Your task to perform on an android device: turn on sleep mode Image 0: 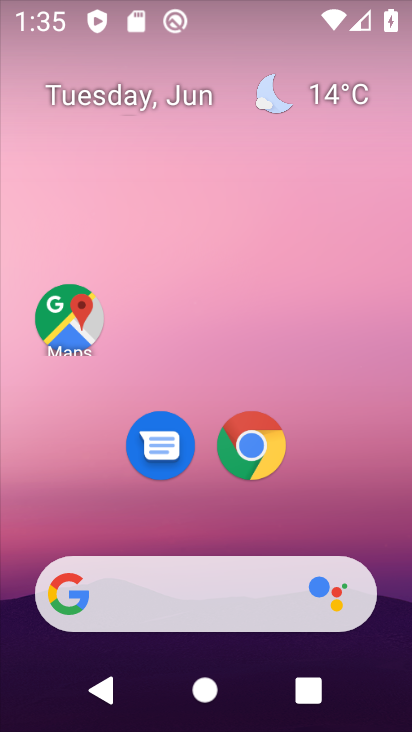
Step 0: drag from (362, 520) to (364, 169)
Your task to perform on an android device: turn on sleep mode Image 1: 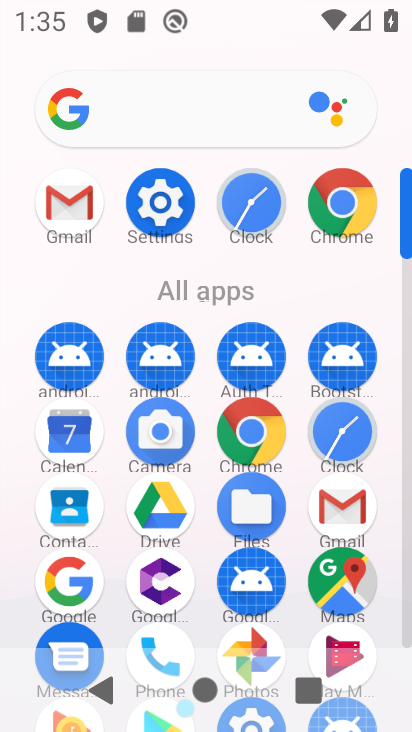
Step 1: drag from (287, 590) to (292, 281)
Your task to perform on an android device: turn on sleep mode Image 2: 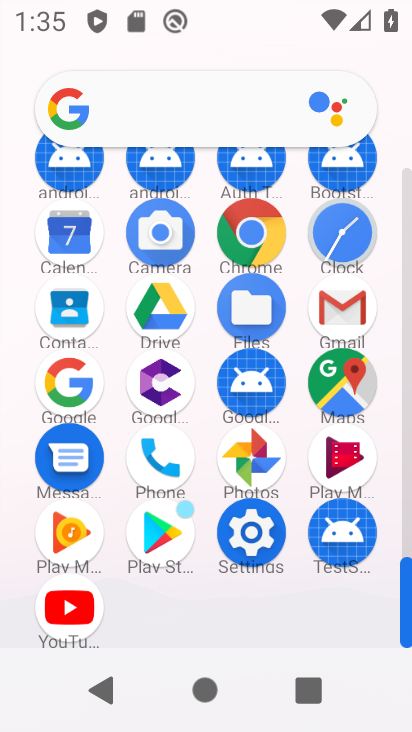
Step 2: click (255, 554)
Your task to perform on an android device: turn on sleep mode Image 3: 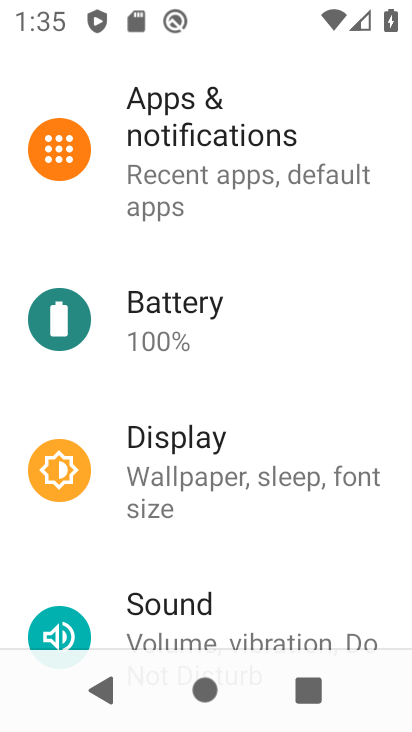
Step 3: drag from (197, 112) to (231, 592)
Your task to perform on an android device: turn on sleep mode Image 4: 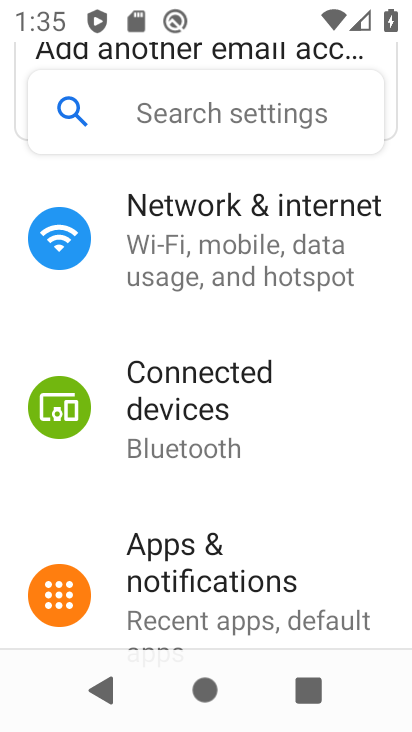
Step 4: click (220, 124)
Your task to perform on an android device: turn on sleep mode Image 5: 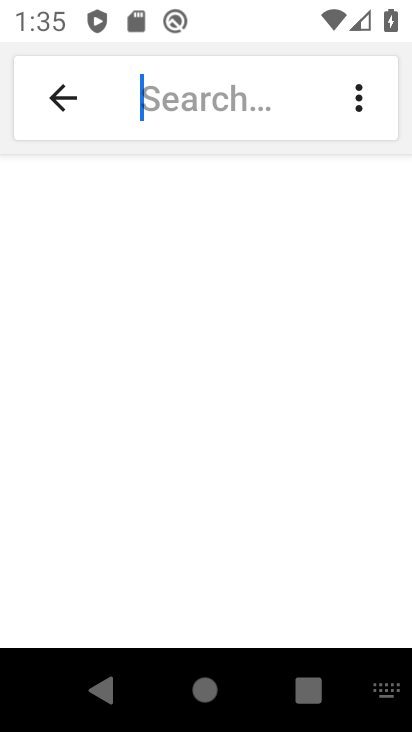
Step 5: type "sleep mode"
Your task to perform on an android device: turn on sleep mode Image 6: 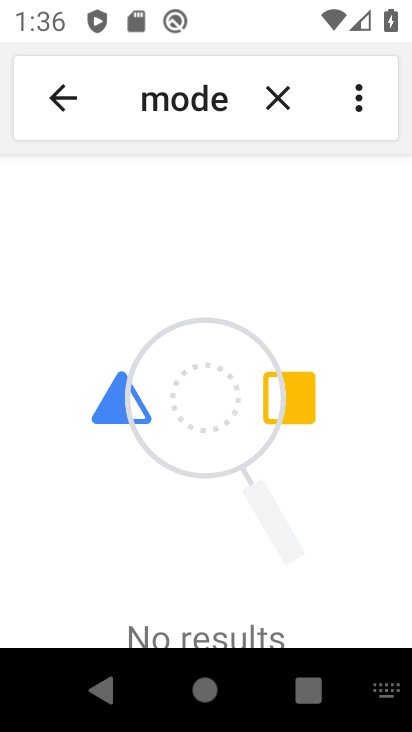
Step 6: task complete